Your task to perform on an android device: Is it going to rain this weekend? Image 0: 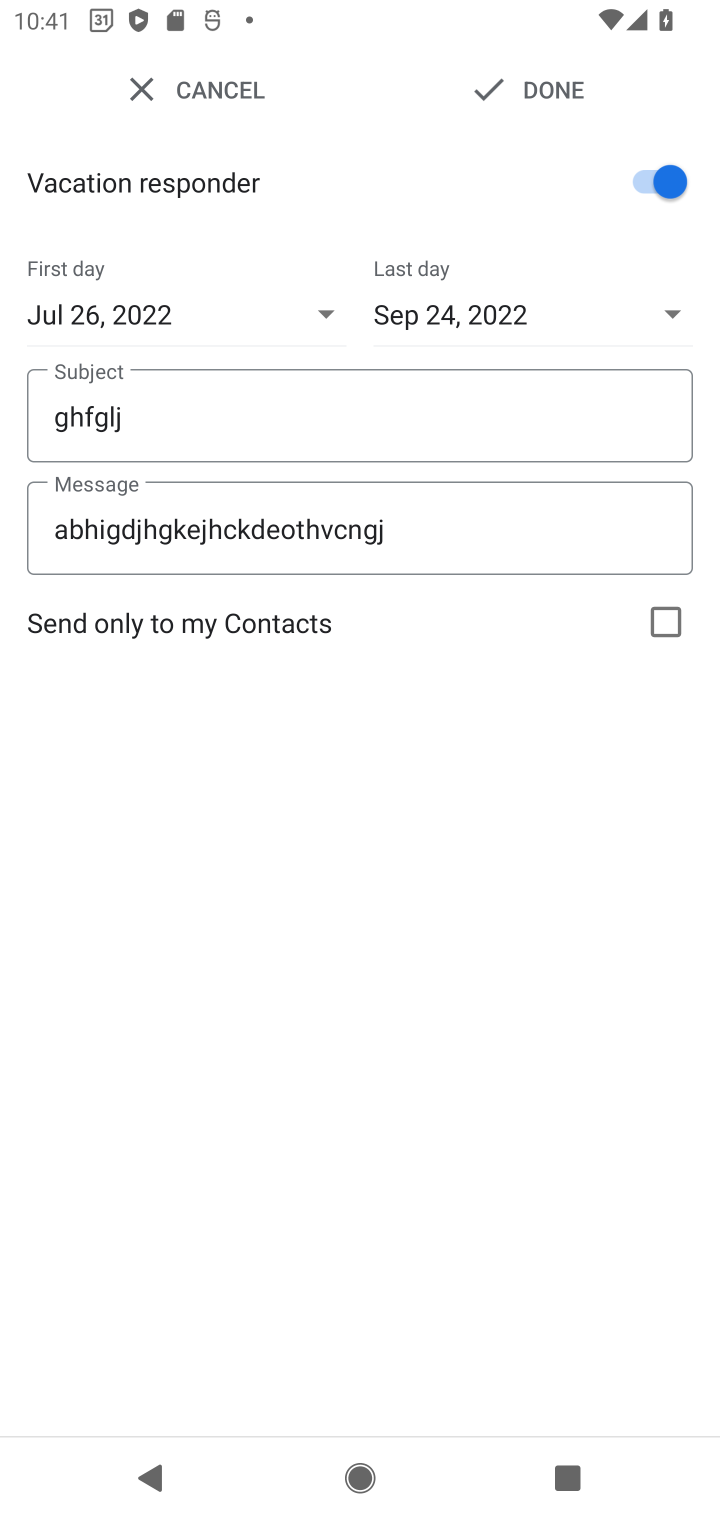
Step 0: press home button
Your task to perform on an android device: Is it going to rain this weekend? Image 1: 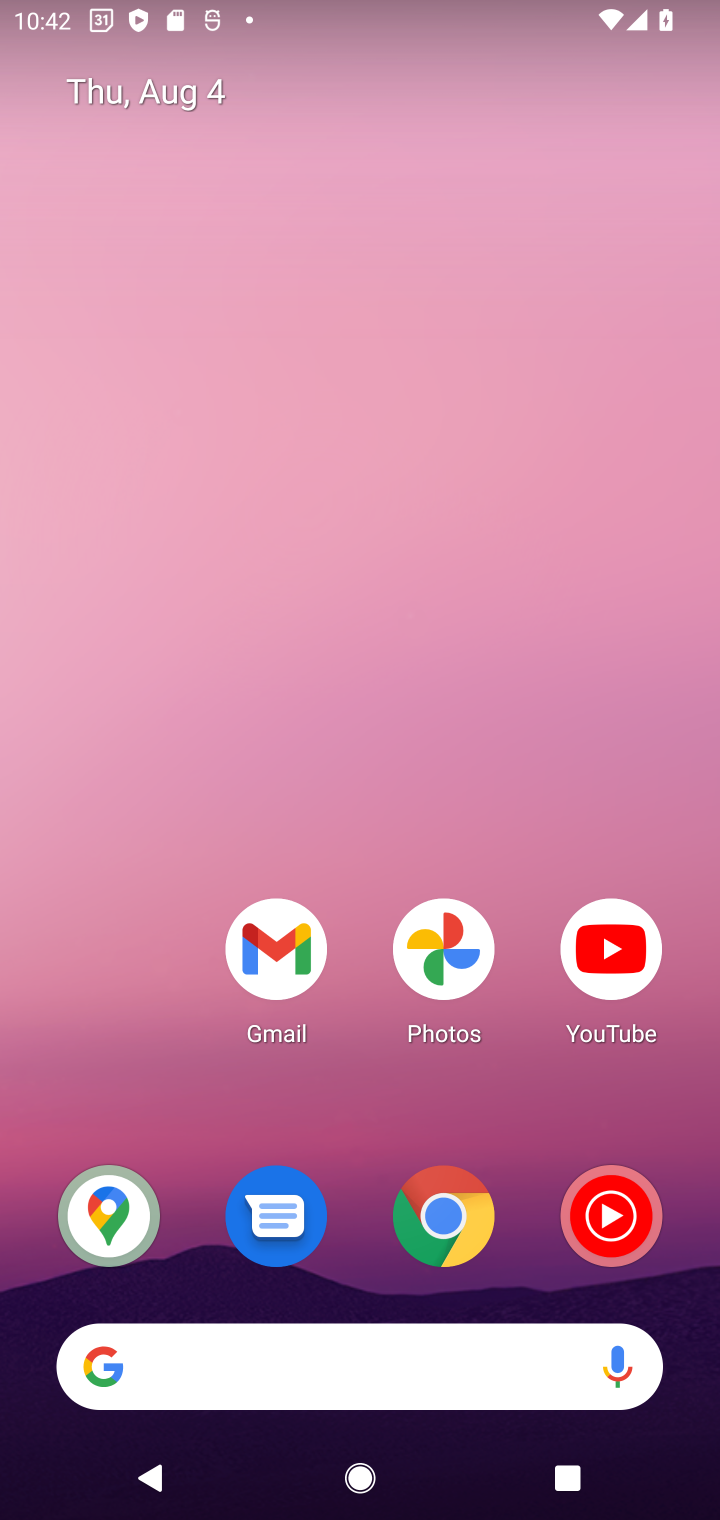
Step 1: drag from (334, 1366) to (225, 138)
Your task to perform on an android device: Is it going to rain this weekend? Image 2: 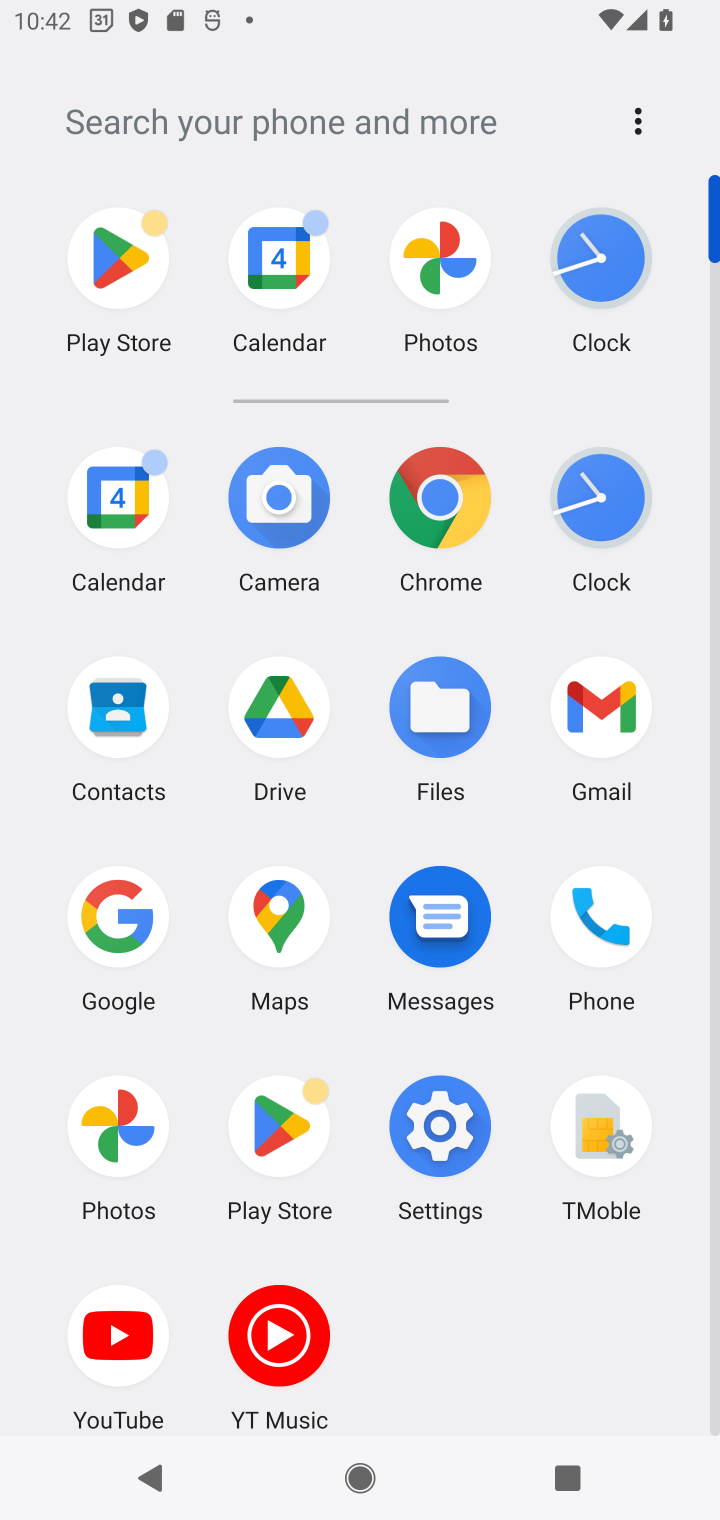
Step 2: click (113, 918)
Your task to perform on an android device: Is it going to rain this weekend? Image 3: 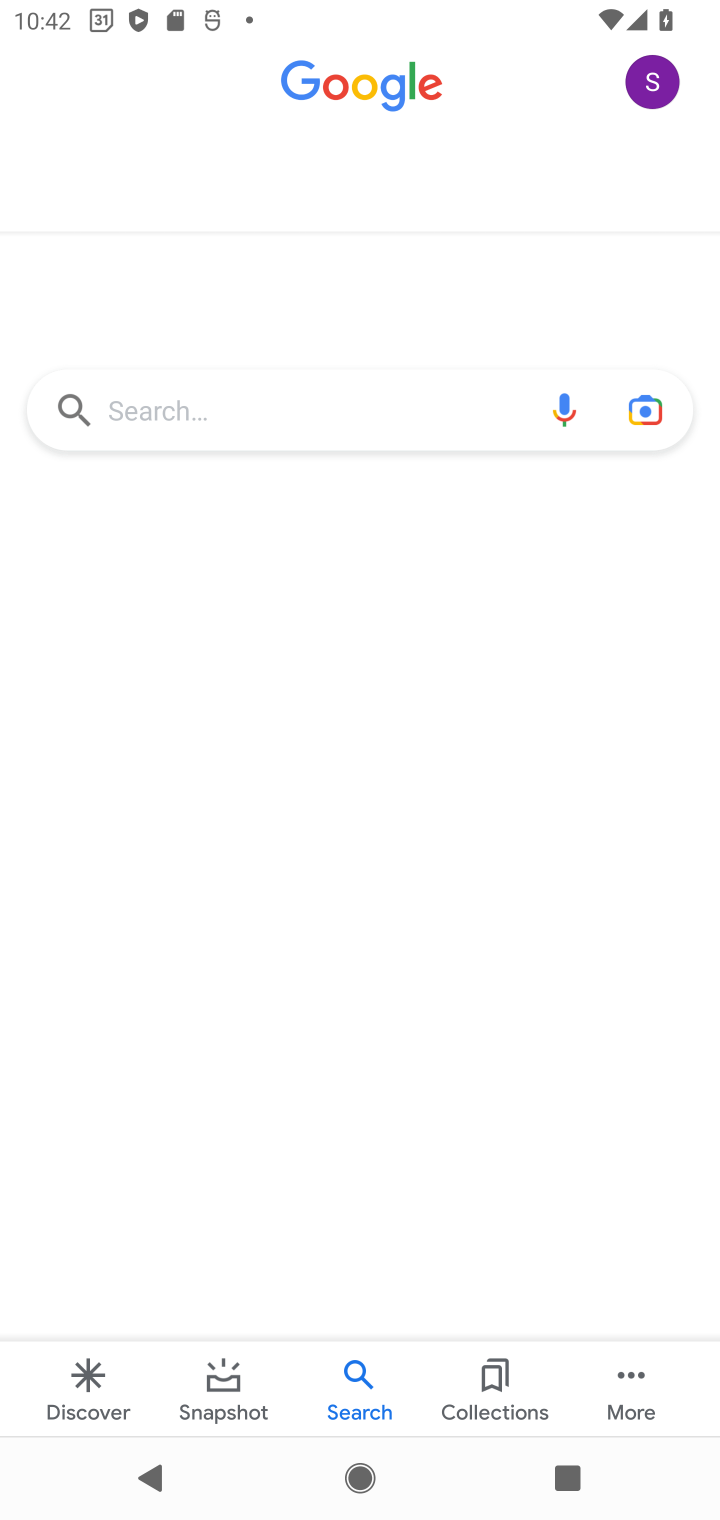
Step 3: click (292, 410)
Your task to perform on an android device: Is it going to rain this weekend? Image 4: 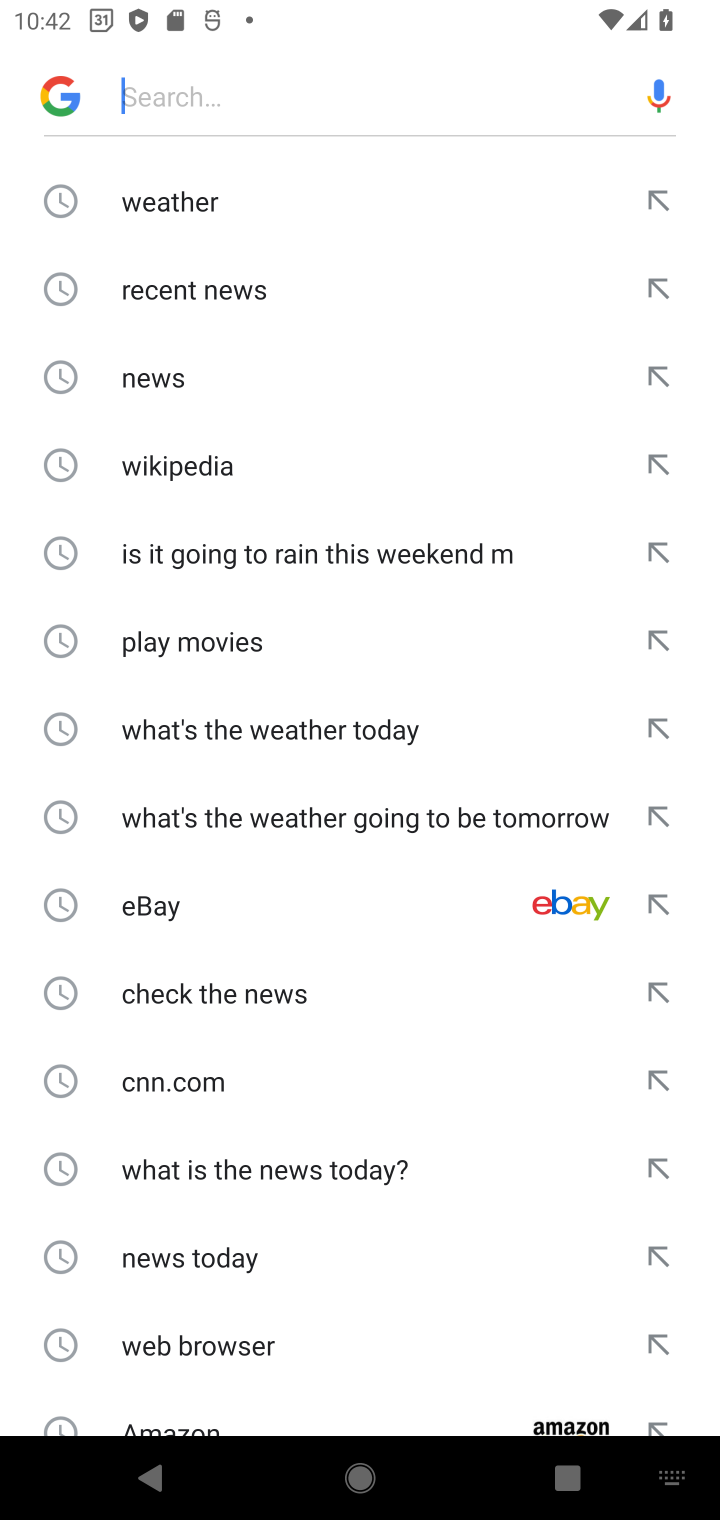
Step 4: type "Is it going to rain this weekend?"
Your task to perform on an android device: Is it going to rain this weekend? Image 5: 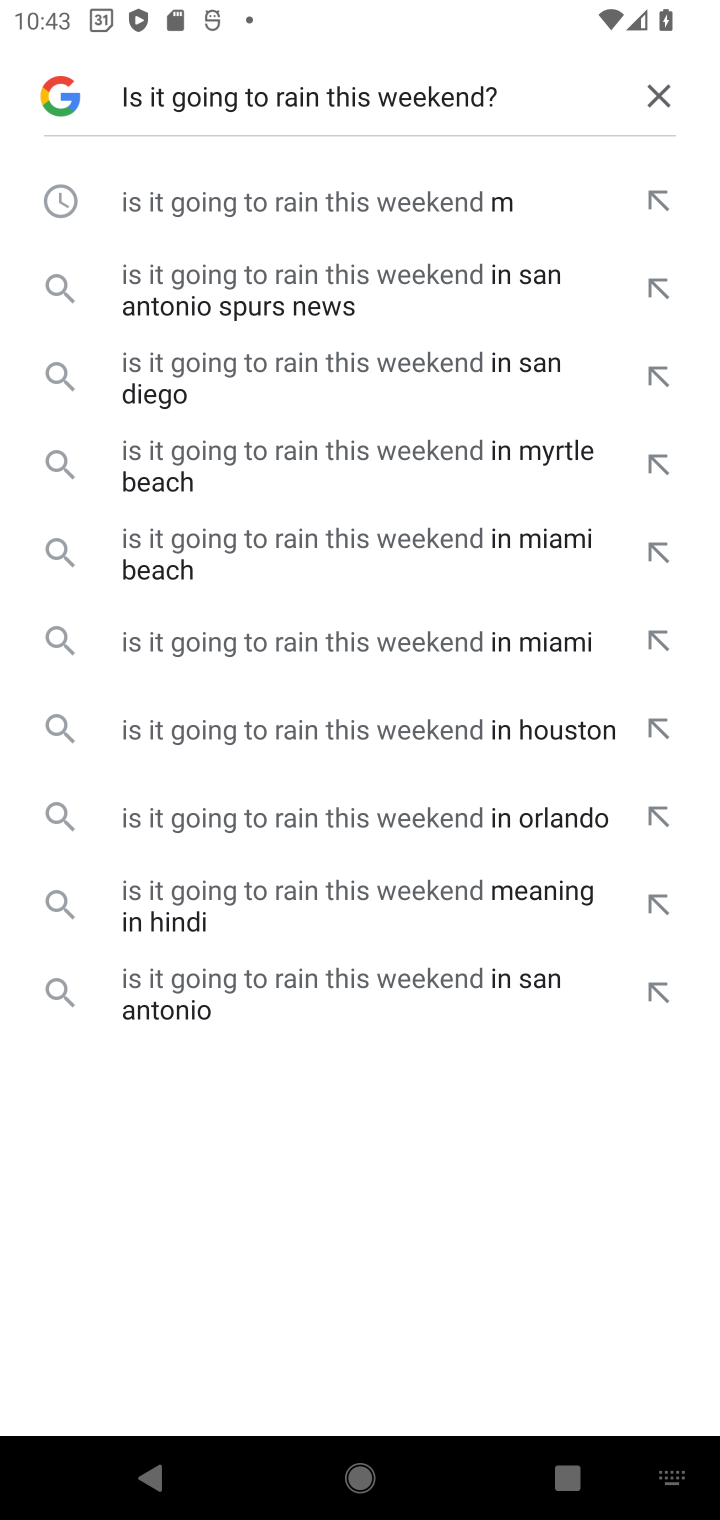
Step 5: click (341, 442)
Your task to perform on an android device: Is it going to rain this weekend? Image 6: 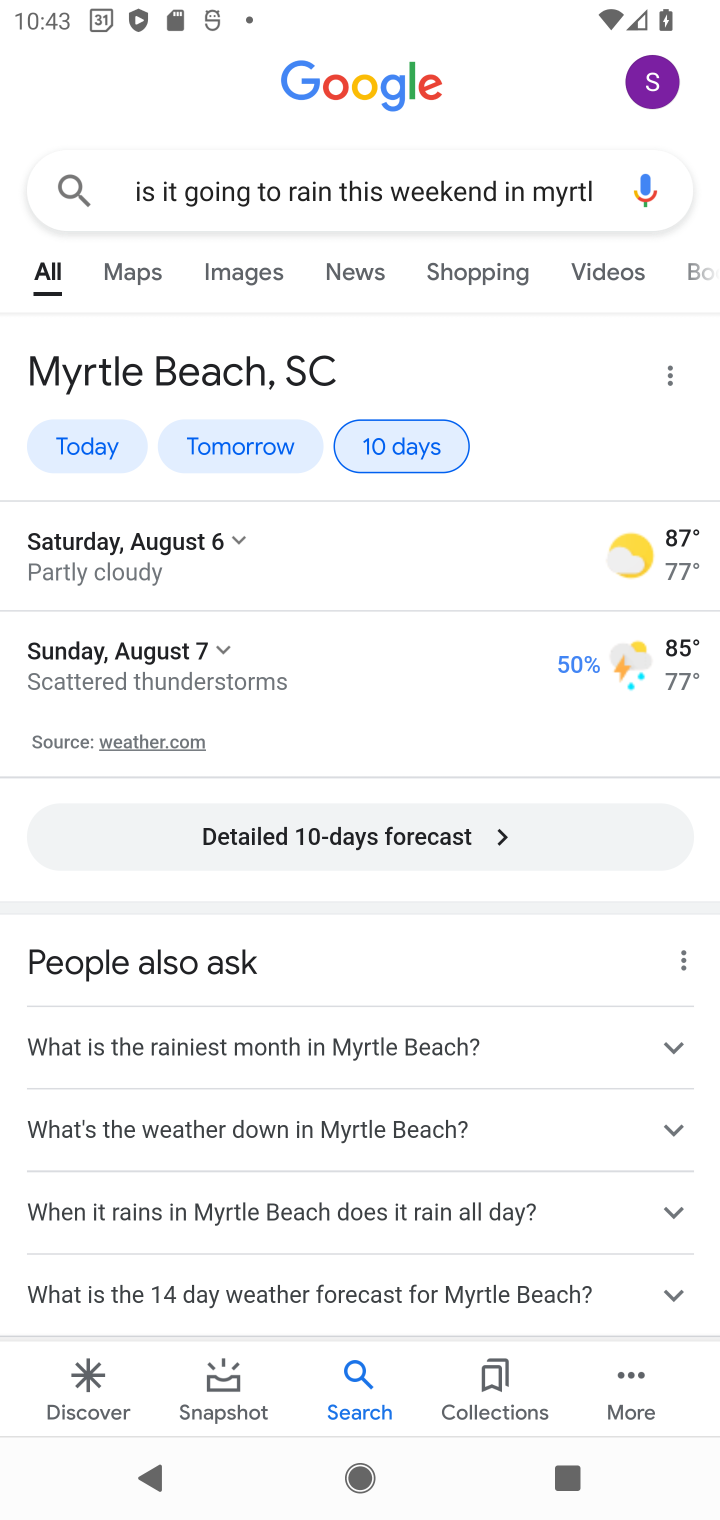
Step 6: task complete